Your task to perform on an android device: What's the weather? Image 0: 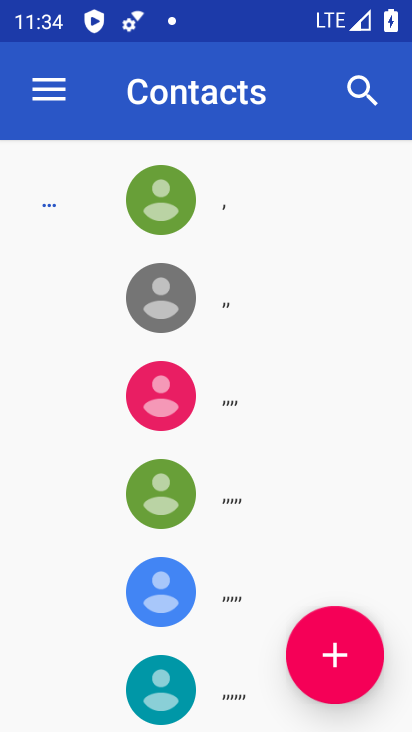
Step 0: press home button
Your task to perform on an android device: What's the weather? Image 1: 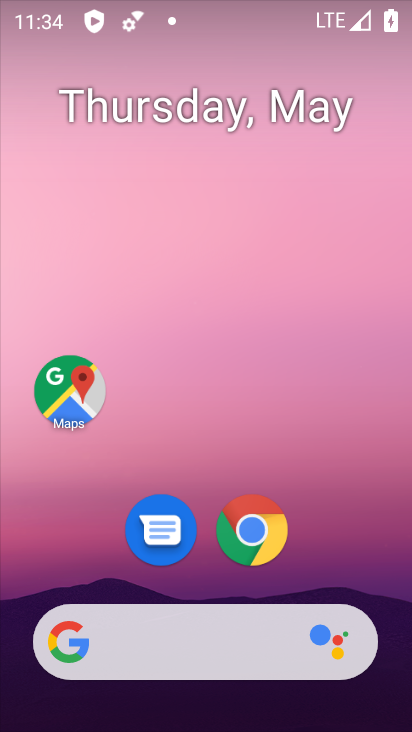
Step 1: click (254, 659)
Your task to perform on an android device: What's the weather? Image 2: 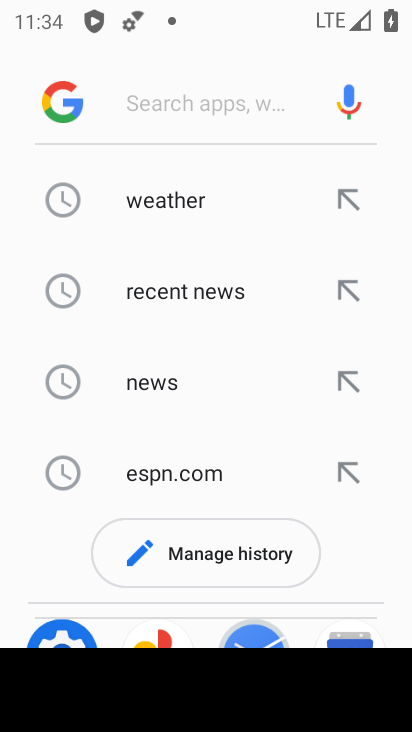
Step 2: type "What's the weather?"
Your task to perform on an android device: What's the weather? Image 3: 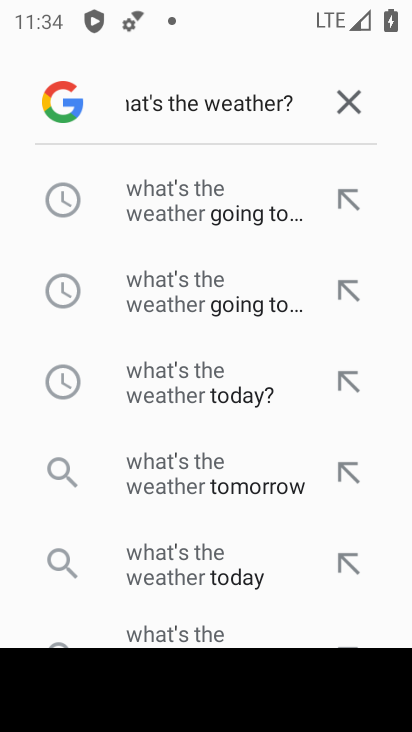
Step 3: click (188, 182)
Your task to perform on an android device: What's the weather? Image 4: 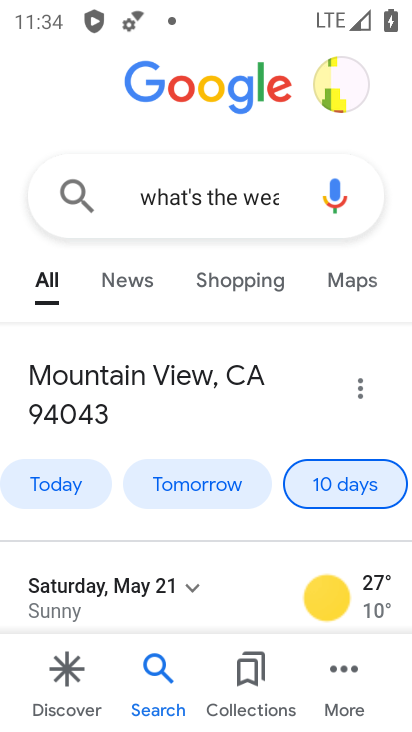
Step 4: click (238, 195)
Your task to perform on an android device: What's the weather? Image 5: 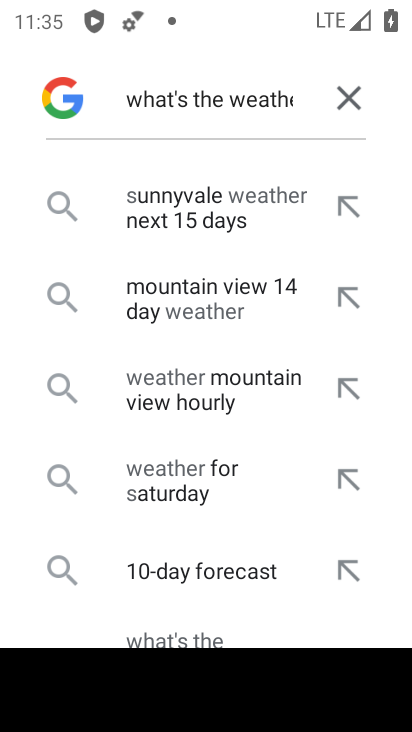
Step 5: task complete